Your task to perform on an android device: Open the map Image 0: 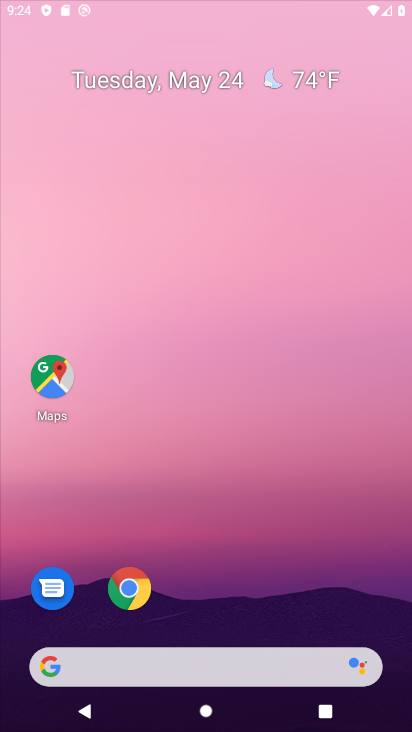
Step 0: click (175, 240)
Your task to perform on an android device: Open the map Image 1: 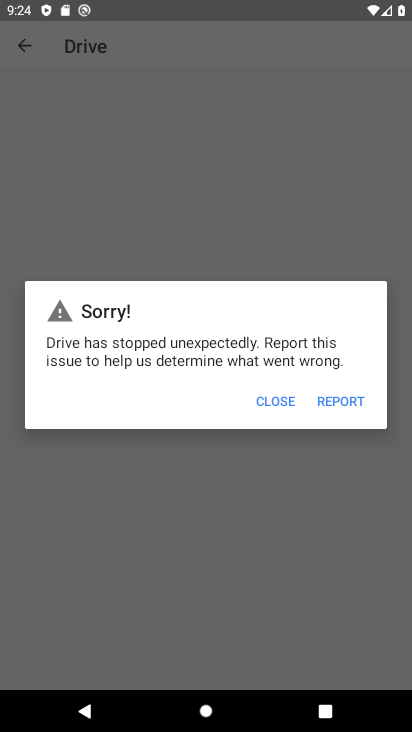
Step 1: press home button
Your task to perform on an android device: Open the map Image 2: 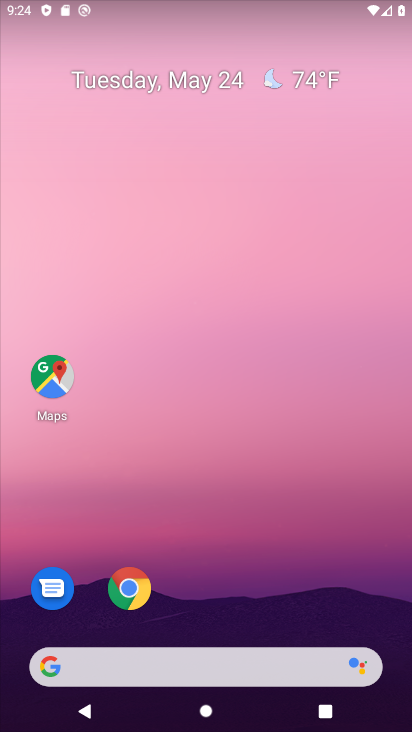
Step 2: click (48, 390)
Your task to perform on an android device: Open the map Image 3: 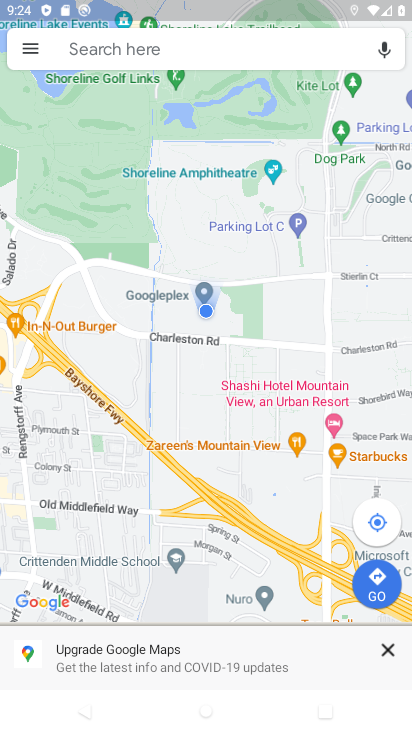
Step 3: task complete